Your task to perform on an android device: Is it going to rain this weekend? Image 0: 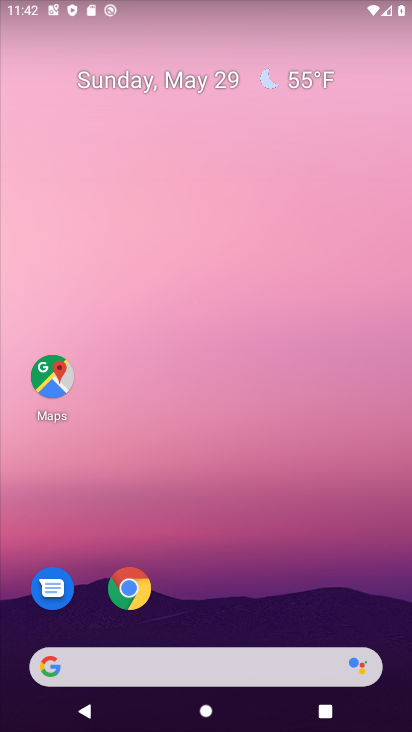
Step 0: drag from (301, 559) to (347, 68)
Your task to perform on an android device: Is it going to rain this weekend? Image 1: 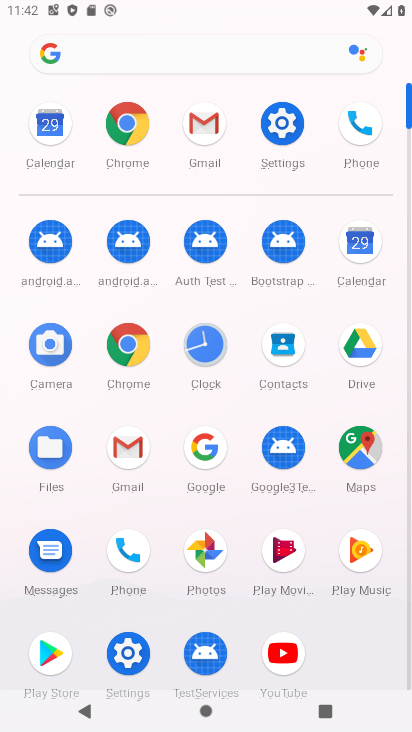
Step 1: press home button
Your task to perform on an android device: Is it going to rain this weekend? Image 2: 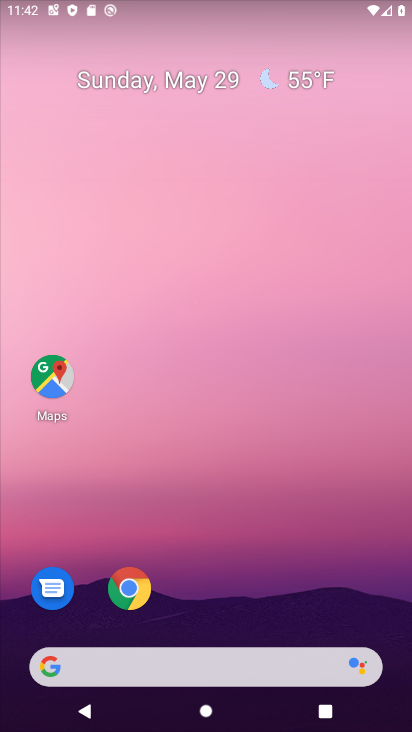
Step 2: click (313, 71)
Your task to perform on an android device: Is it going to rain this weekend? Image 3: 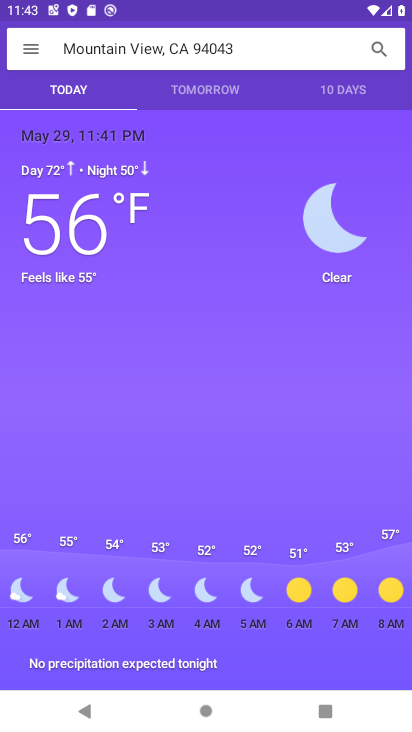
Step 3: click (318, 88)
Your task to perform on an android device: Is it going to rain this weekend? Image 4: 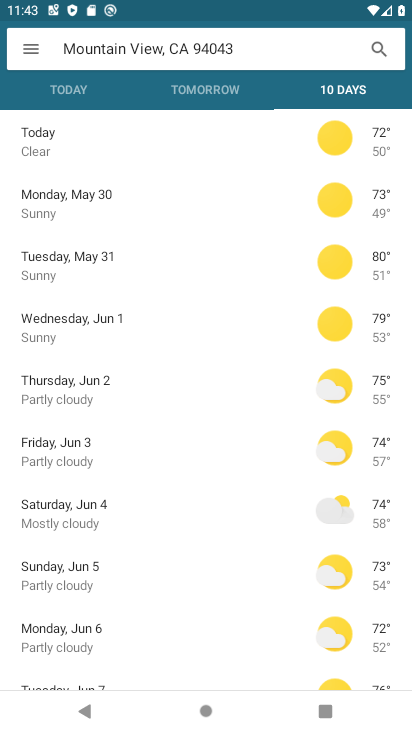
Step 4: task complete